Your task to perform on an android device: Go to display settings Image 0: 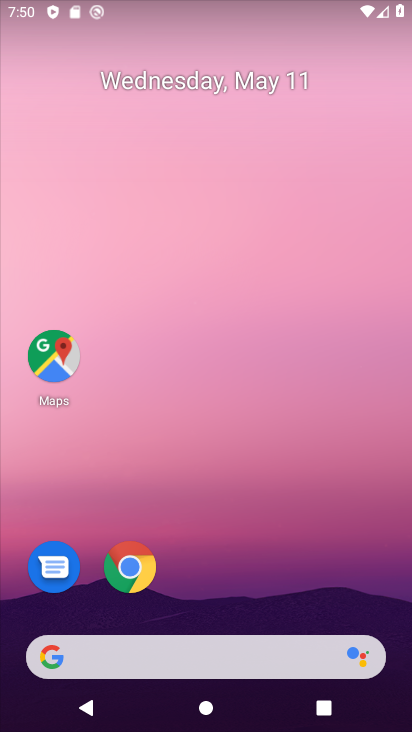
Step 0: drag from (233, 615) to (297, 20)
Your task to perform on an android device: Go to display settings Image 1: 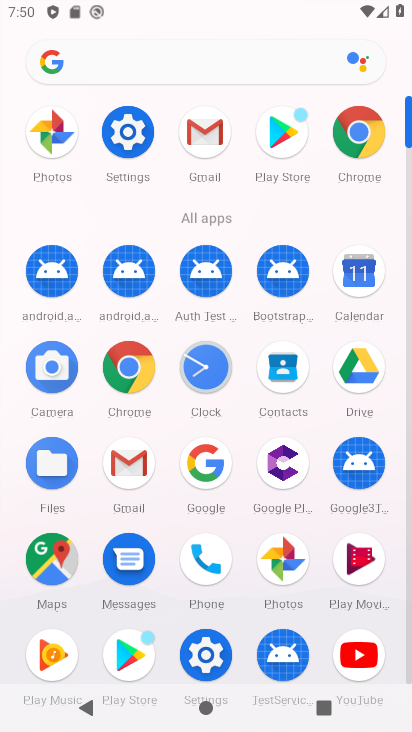
Step 1: click (213, 661)
Your task to perform on an android device: Go to display settings Image 2: 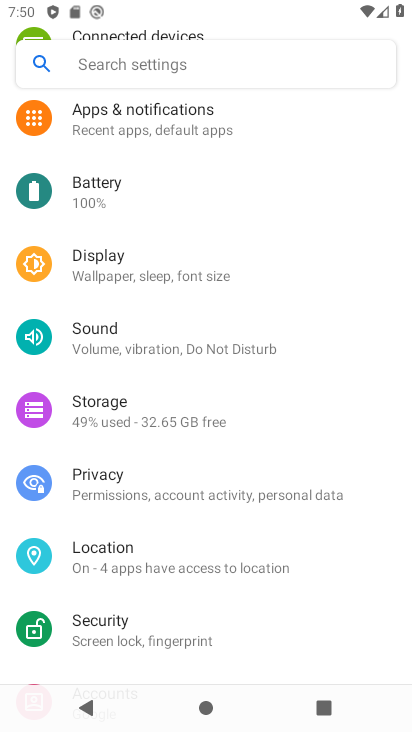
Step 2: click (165, 167)
Your task to perform on an android device: Go to display settings Image 3: 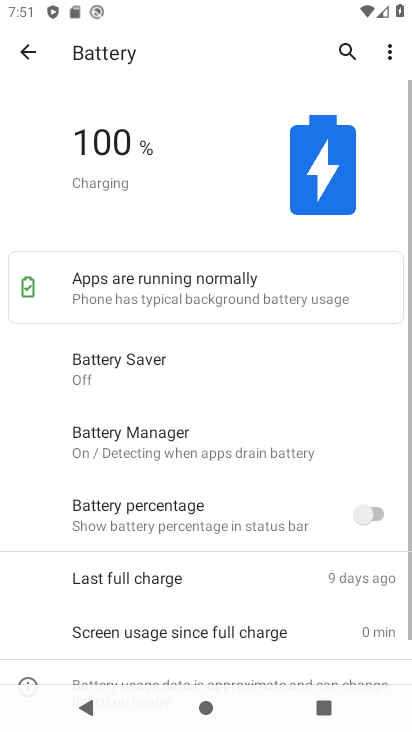
Step 3: press back button
Your task to perform on an android device: Go to display settings Image 4: 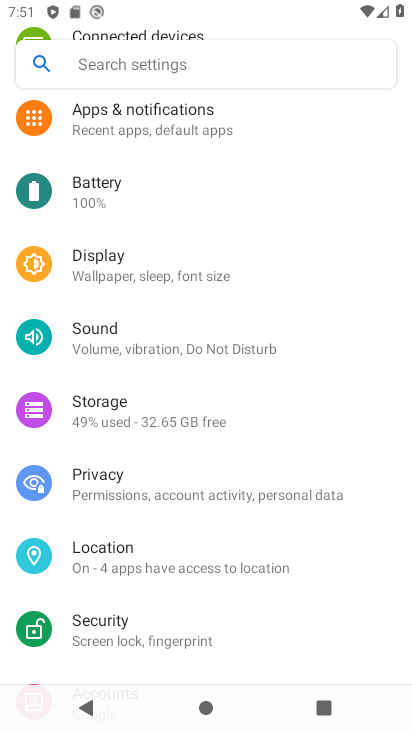
Step 4: click (134, 277)
Your task to perform on an android device: Go to display settings Image 5: 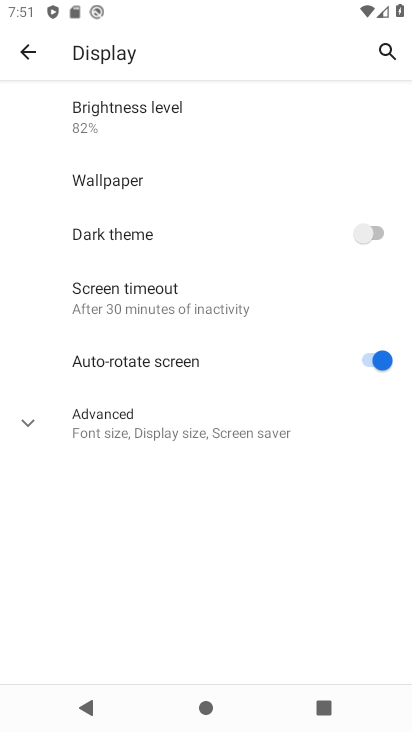
Step 5: task complete